Your task to perform on an android device: open sync settings in chrome Image 0: 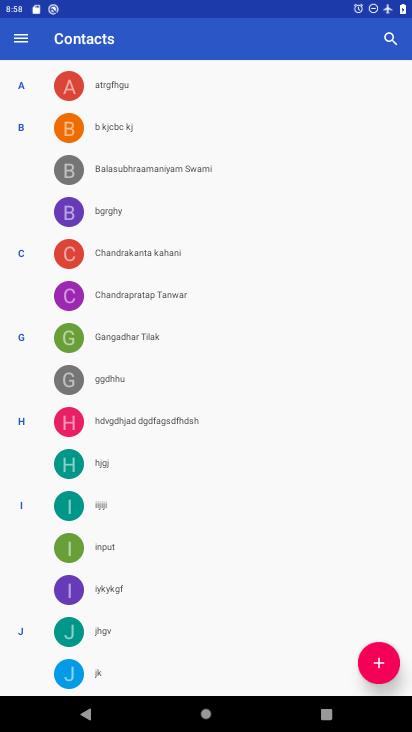
Step 0: press home button
Your task to perform on an android device: open sync settings in chrome Image 1: 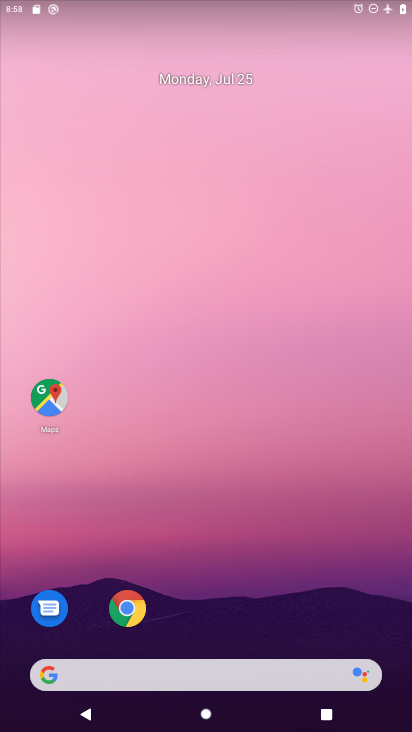
Step 1: click (124, 610)
Your task to perform on an android device: open sync settings in chrome Image 2: 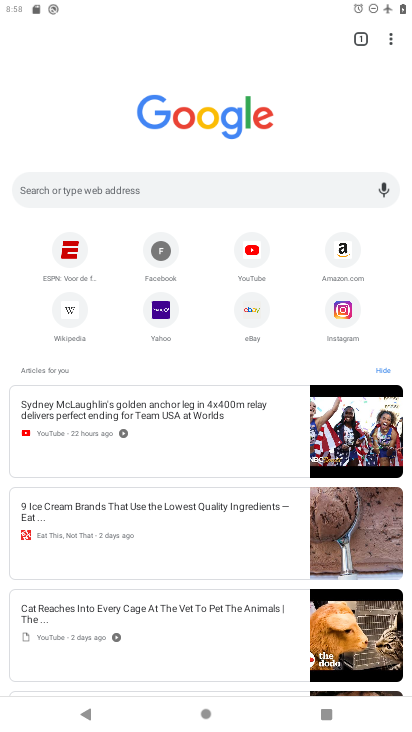
Step 2: click (389, 29)
Your task to perform on an android device: open sync settings in chrome Image 3: 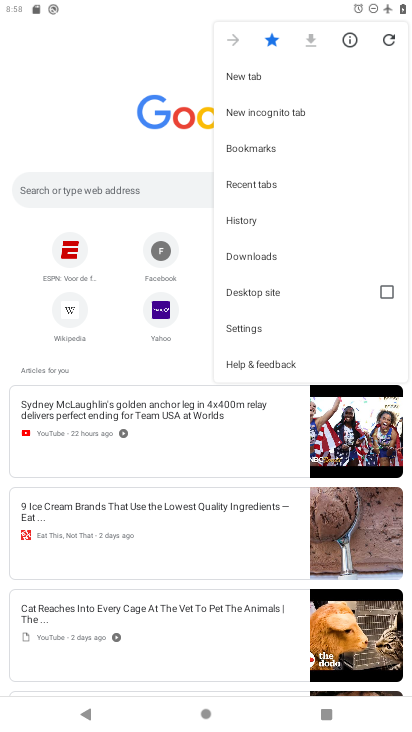
Step 3: click (258, 333)
Your task to perform on an android device: open sync settings in chrome Image 4: 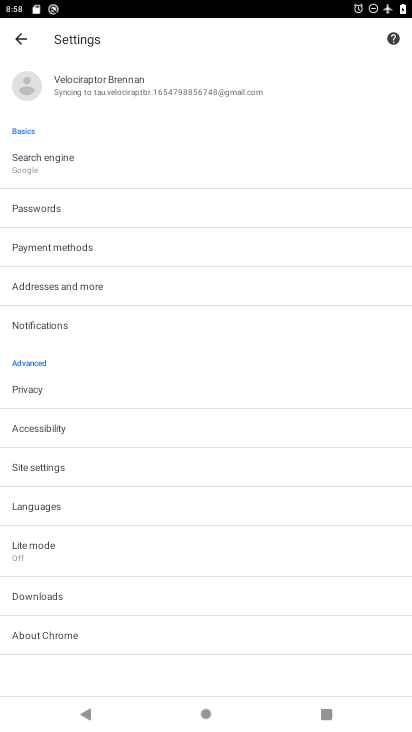
Step 4: click (106, 88)
Your task to perform on an android device: open sync settings in chrome Image 5: 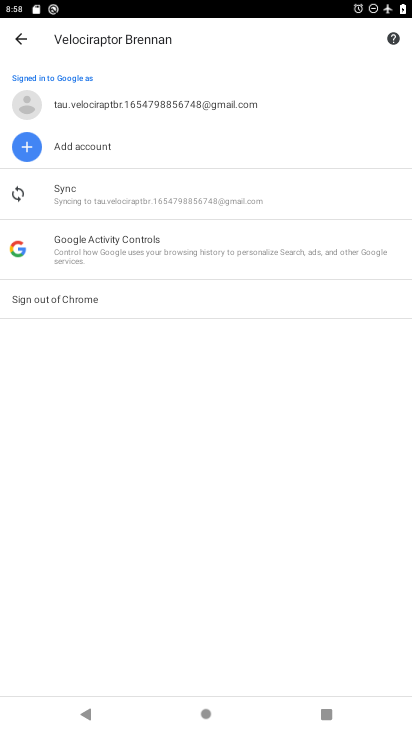
Step 5: click (146, 196)
Your task to perform on an android device: open sync settings in chrome Image 6: 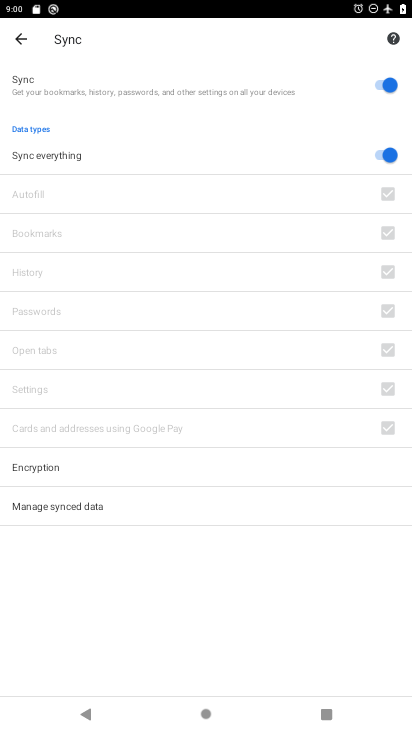
Step 6: task complete